Your task to perform on an android device: turn on wifi Image 0: 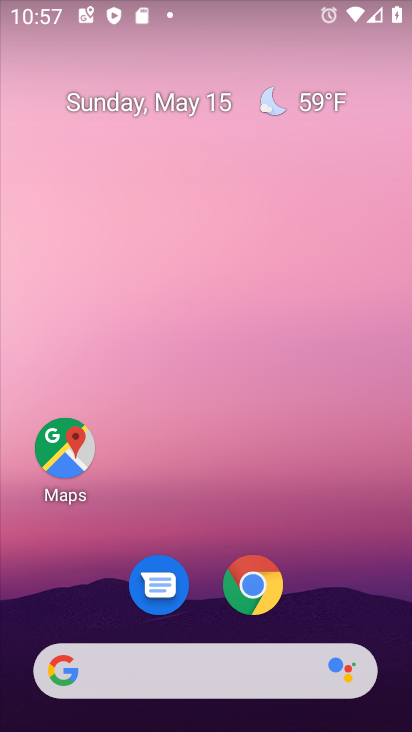
Step 0: drag from (225, 447) to (231, 33)
Your task to perform on an android device: turn on wifi Image 1: 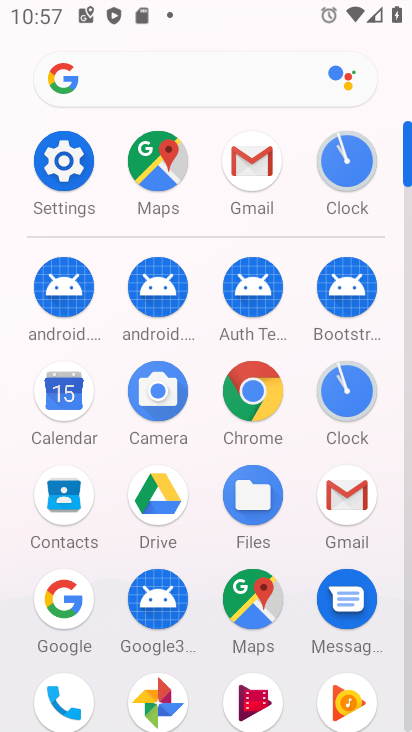
Step 1: click (64, 163)
Your task to perform on an android device: turn on wifi Image 2: 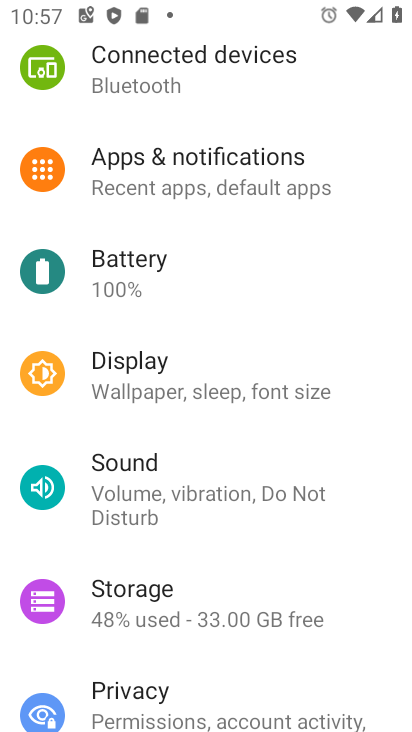
Step 2: drag from (235, 133) to (205, 412)
Your task to perform on an android device: turn on wifi Image 3: 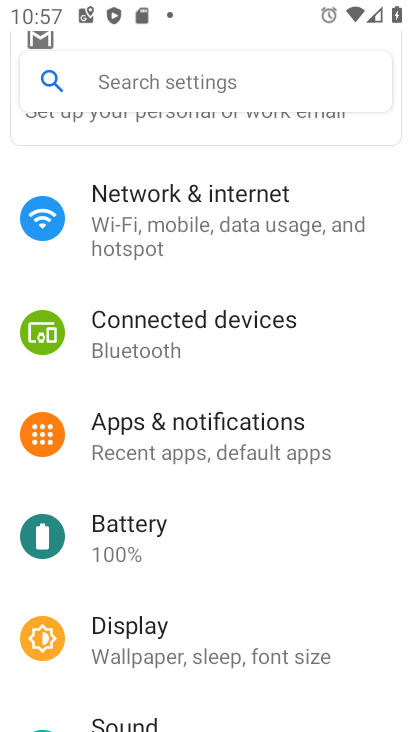
Step 3: click (203, 262)
Your task to perform on an android device: turn on wifi Image 4: 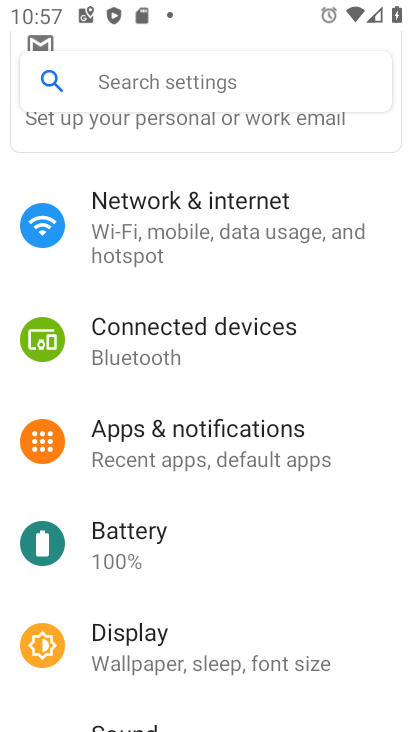
Step 4: click (203, 240)
Your task to perform on an android device: turn on wifi Image 5: 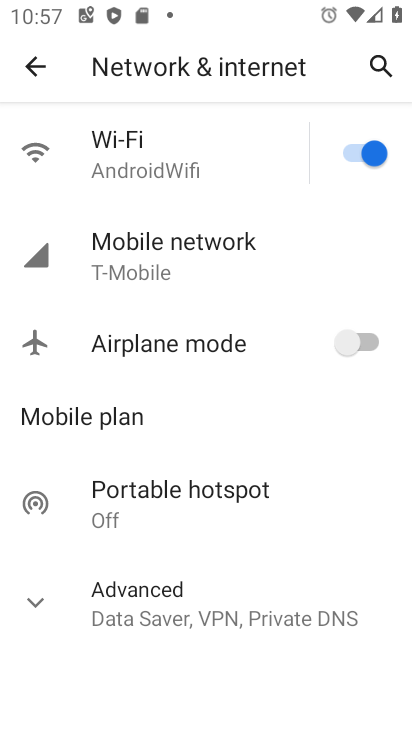
Step 5: task complete